Your task to perform on an android device: Is it going to rain tomorrow? Image 0: 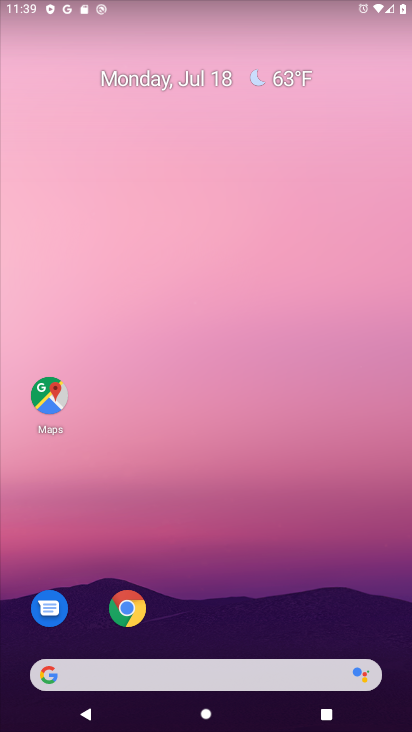
Step 0: click (134, 674)
Your task to perform on an android device: Is it going to rain tomorrow? Image 1: 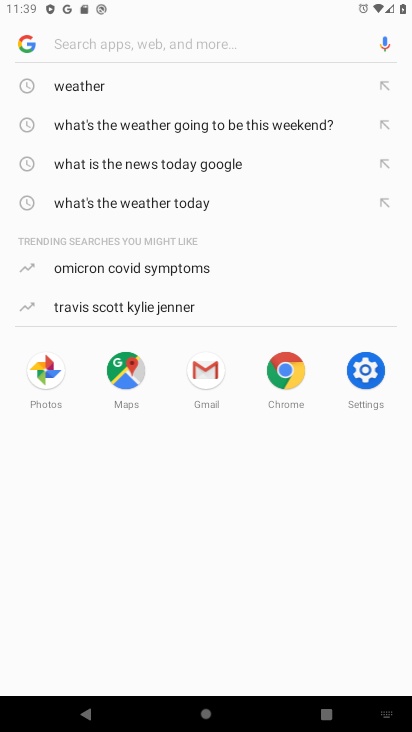
Step 1: type "is it going to rain tomorrow"
Your task to perform on an android device: Is it going to rain tomorrow? Image 2: 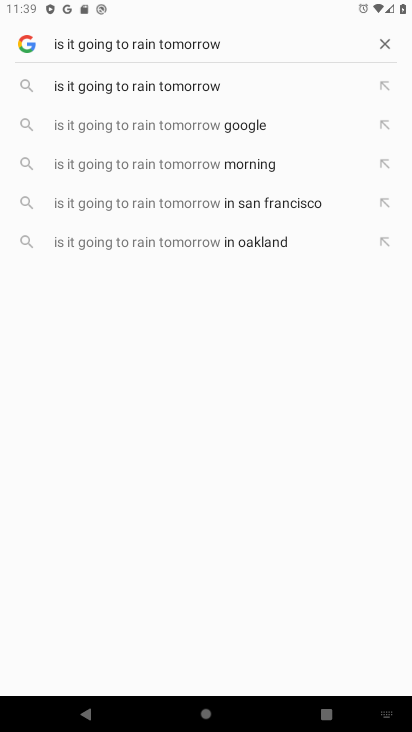
Step 2: click (113, 87)
Your task to perform on an android device: Is it going to rain tomorrow? Image 3: 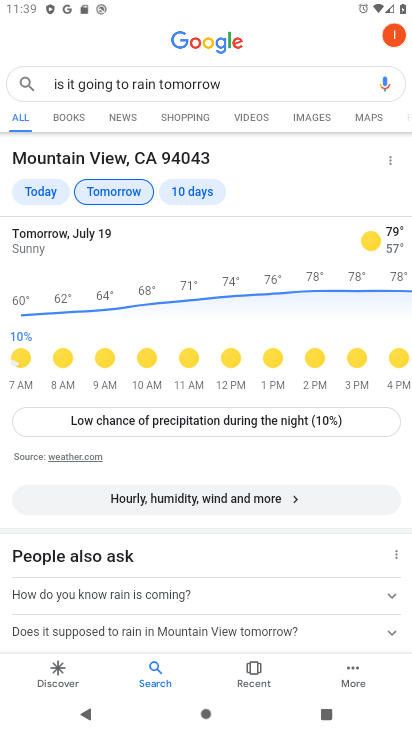
Step 3: task complete